Your task to perform on an android device: Open Chrome and go to settings Image 0: 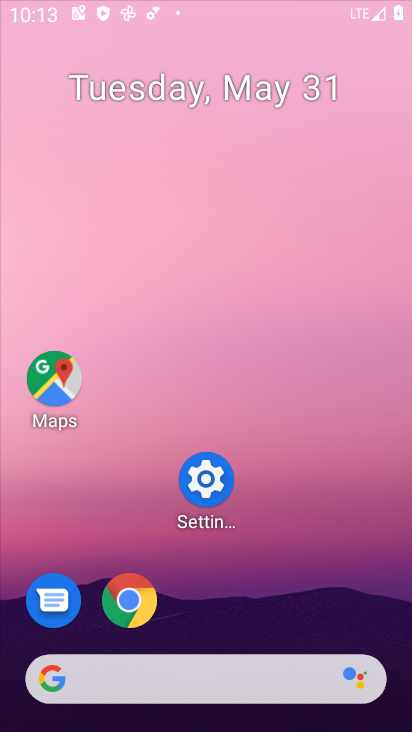
Step 0: press home button
Your task to perform on an android device: Open Chrome and go to settings Image 1: 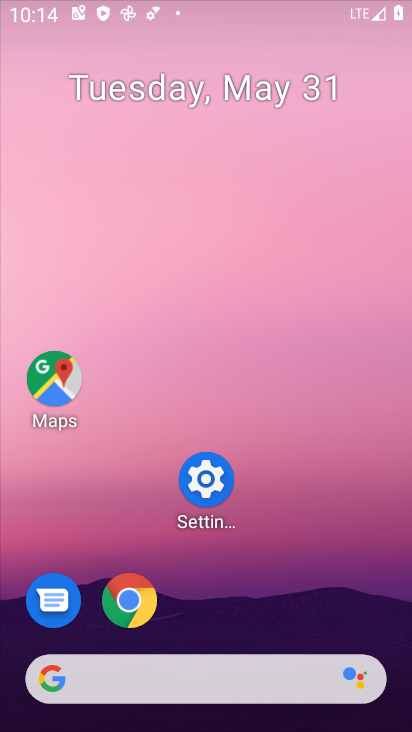
Step 1: click (205, 485)
Your task to perform on an android device: Open Chrome and go to settings Image 2: 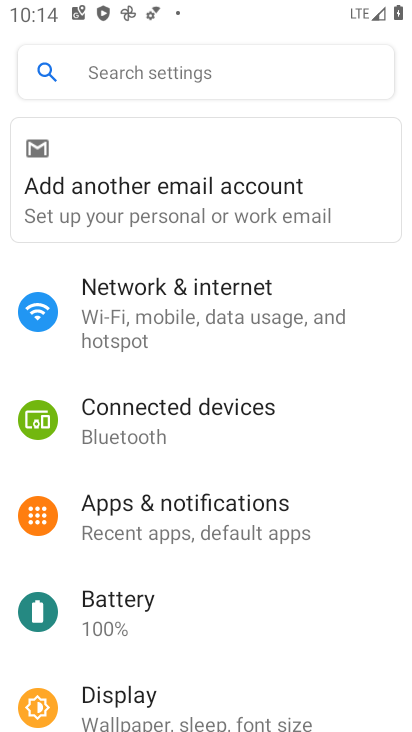
Step 2: press home button
Your task to perform on an android device: Open Chrome and go to settings Image 3: 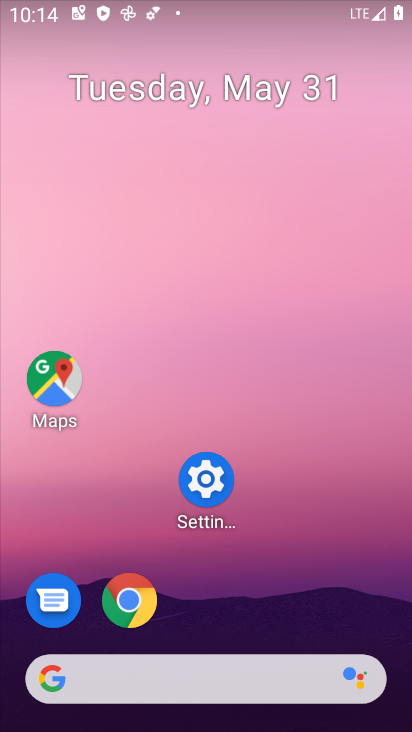
Step 3: click (113, 596)
Your task to perform on an android device: Open Chrome and go to settings Image 4: 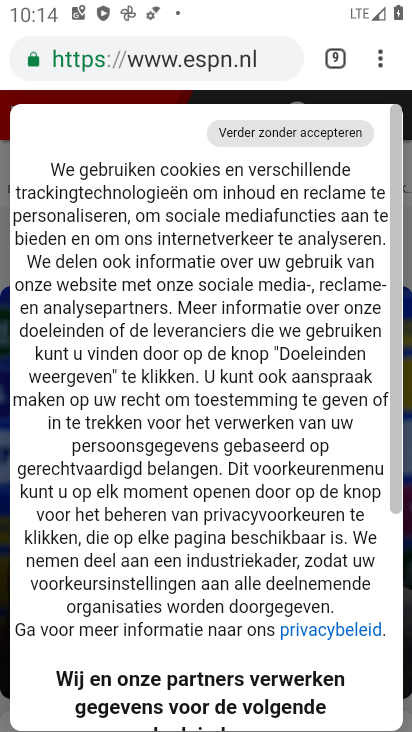
Step 4: click (383, 74)
Your task to perform on an android device: Open Chrome and go to settings Image 5: 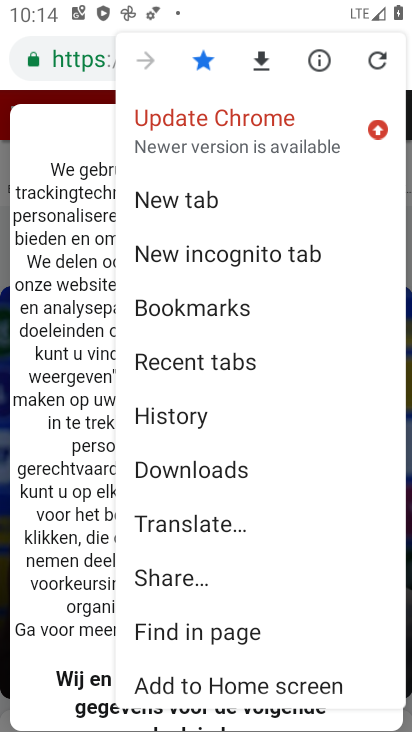
Step 5: click (200, 196)
Your task to perform on an android device: Open Chrome and go to settings Image 6: 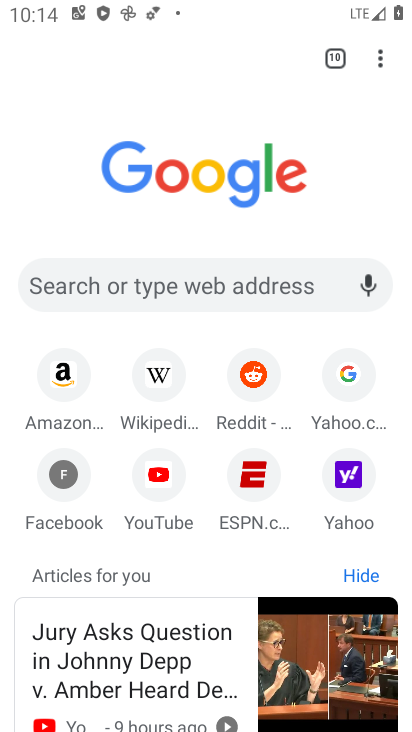
Step 6: click (381, 63)
Your task to perform on an android device: Open Chrome and go to settings Image 7: 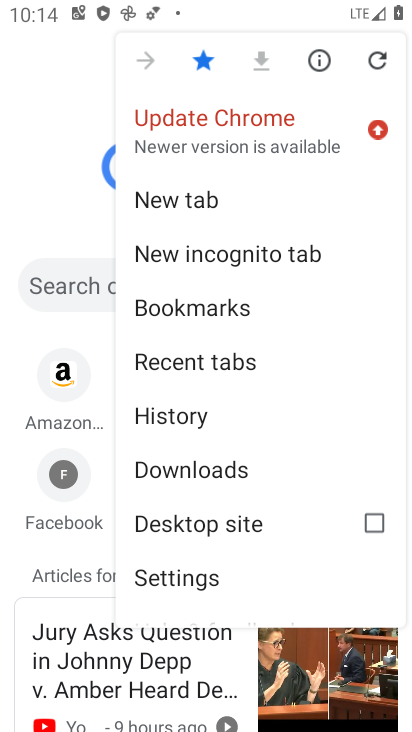
Step 7: click (209, 581)
Your task to perform on an android device: Open Chrome and go to settings Image 8: 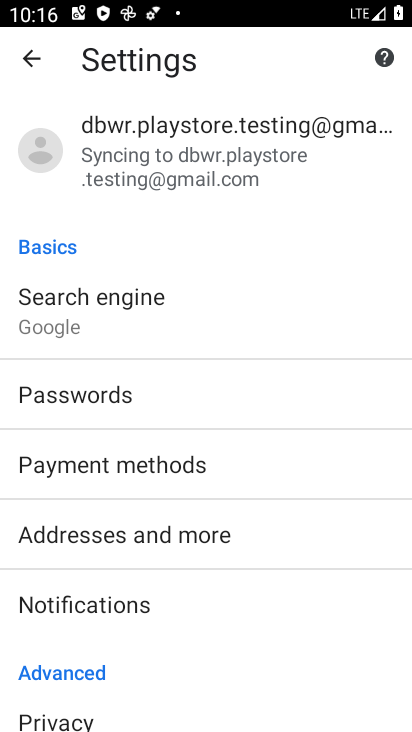
Step 8: task complete